Your task to perform on an android device: change the clock display to show seconds Image 0: 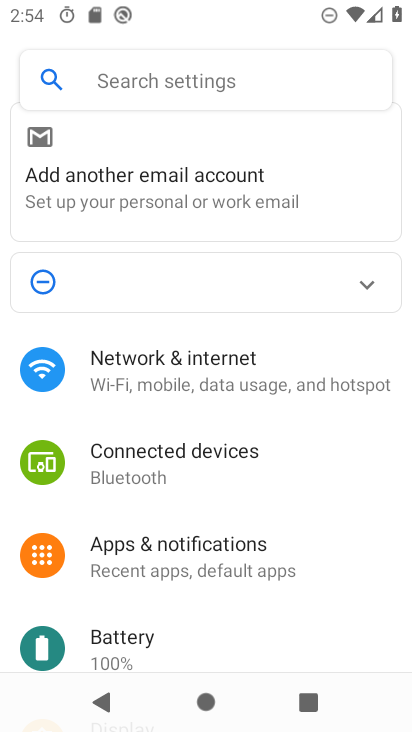
Step 0: press home button
Your task to perform on an android device: change the clock display to show seconds Image 1: 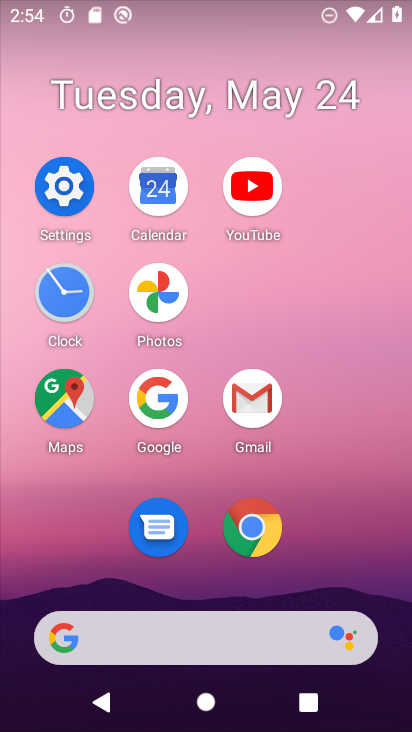
Step 1: click (64, 279)
Your task to perform on an android device: change the clock display to show seconds Image 2: 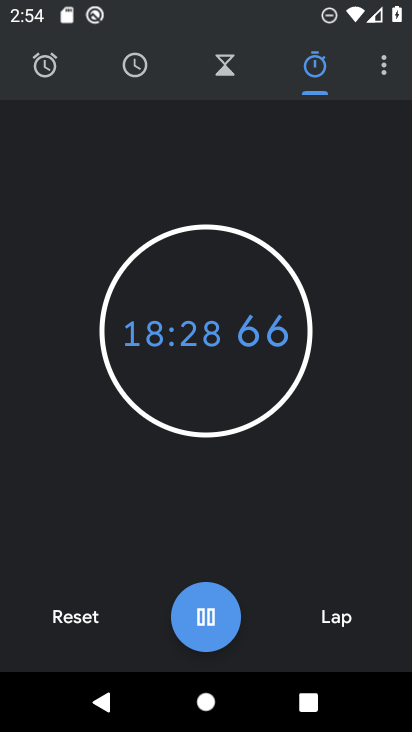
Step 2: click (390, 65)
Your task to perform on an android device: change the clock display to show seconds Image 3: 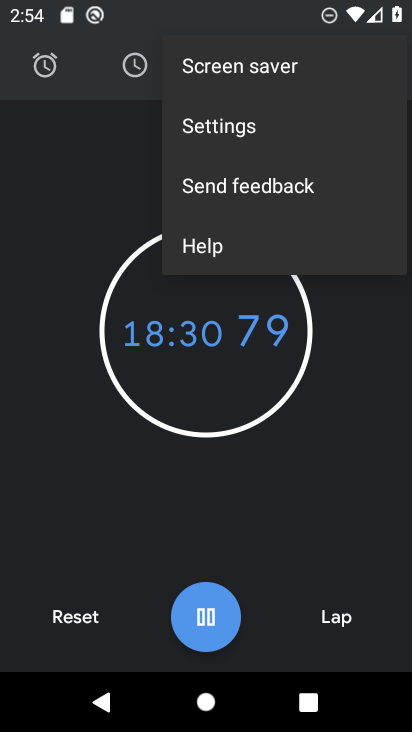
Step 3: click (273, 115)
Your task to perform on an android device: change the clock display to show seconds Image 4: 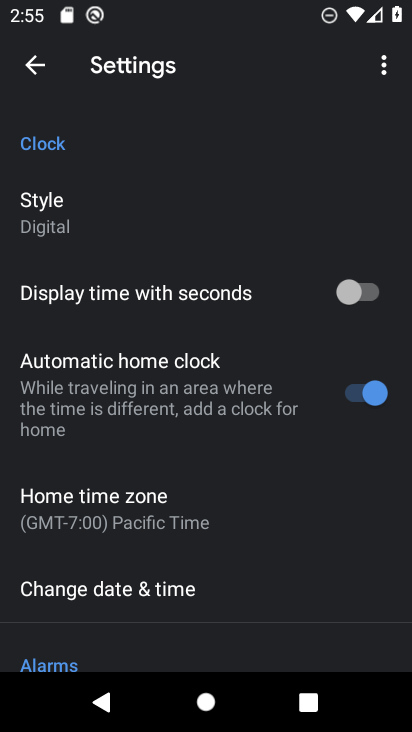
Step 4: click (338, 293)
Your task to perform on an android device: change the clock display to show seconds Image 5: 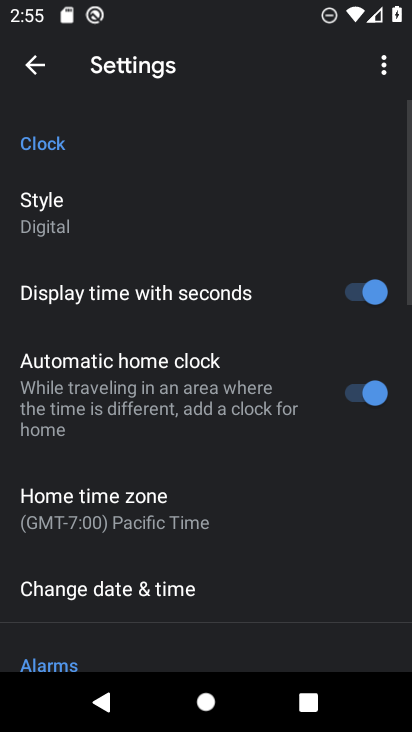
Step 5: task complete